Your task to perform on an android device: change notification settings in the gmail app Image 0: 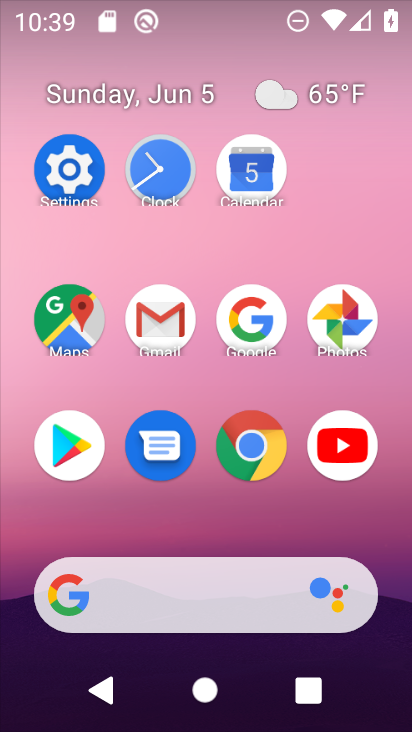
Step 0: click (156, 320)
Your task to perform on an android device: change notification settings in the gmail app Image 1: 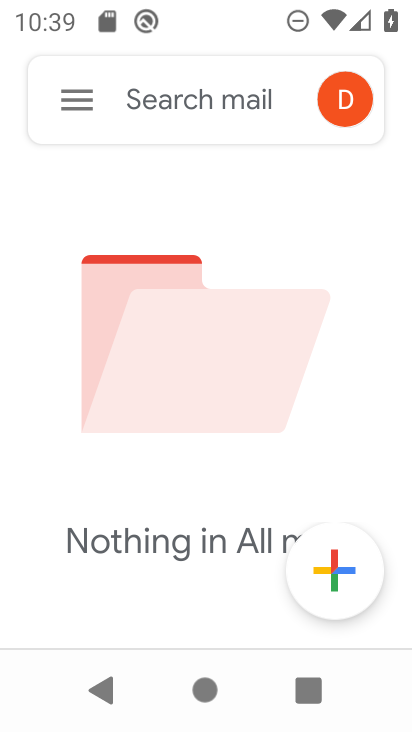
Step 1: click (100, 106)
Your task to perform on an android device: change notification settings in the gmail app Image 2: 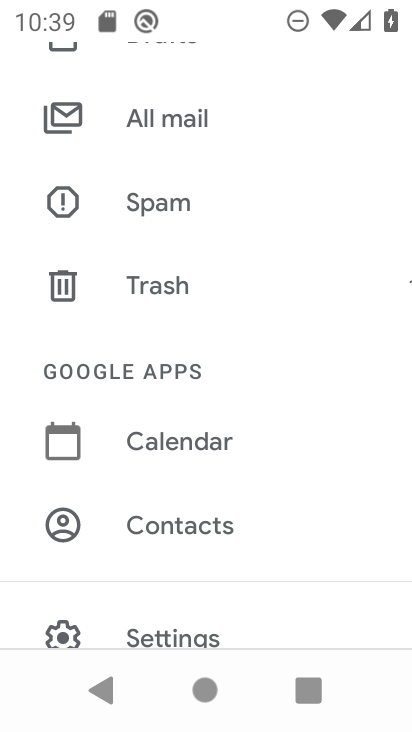
Step 2: click (164, 628)
Your task to perform on an android device: change notification settings in the gmail app Image 3: 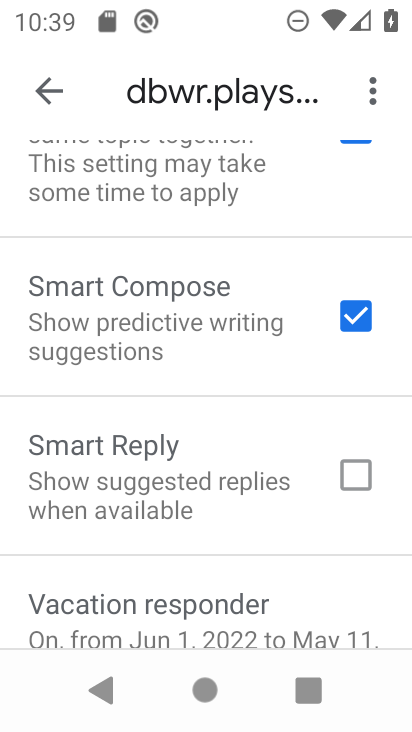
Step 3: drag from (238, 161) to (251, 567)
Your task to perform on an android device: change notification settings in the gmail app Image 4: 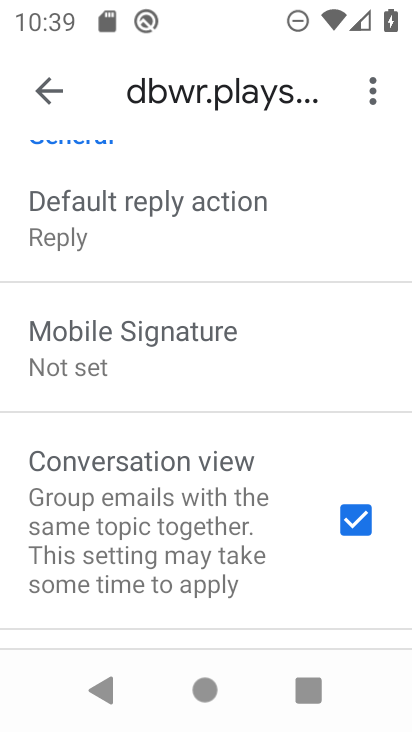
Step 4: drag from (308, 203) to (295, 553)
Your task to perform on an android device: change notification settings in the gmail app Image 5: 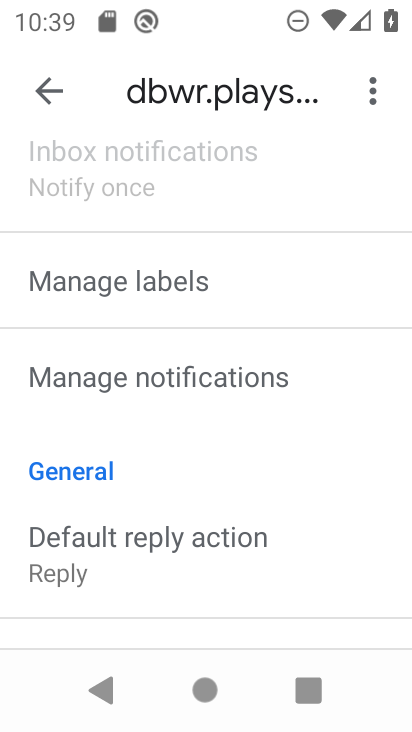
Step 5: drag from (328, 264) to (306, 660)
Your task to perform on an android device: change notification settings in the gmail app Image 6: 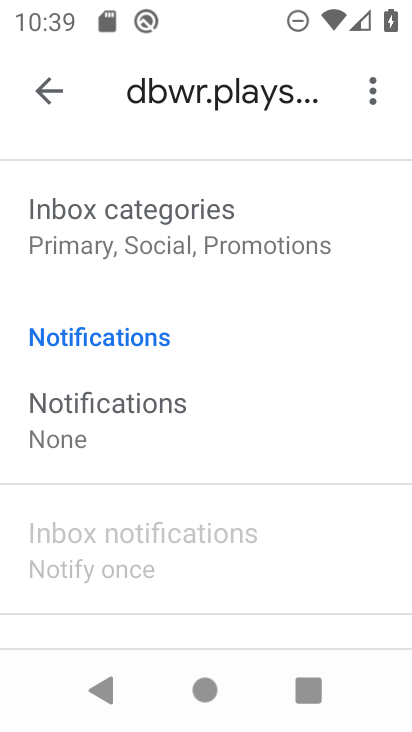
Step 6: click (220, 393)
Your task to perform on an android device: change notification settings in the gmail app Image 7: 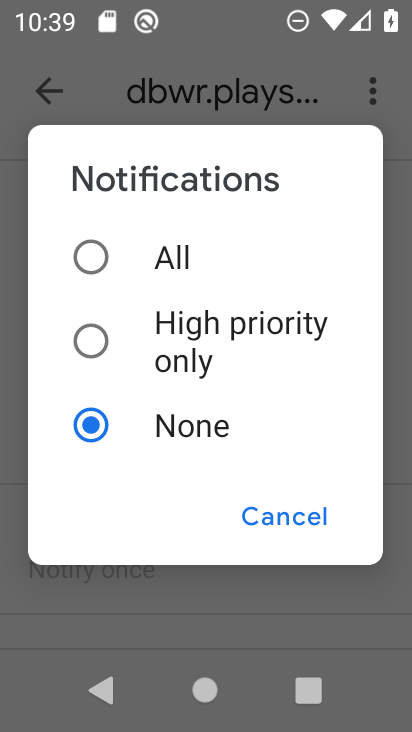
Step 7: click (189, 330)
Your task to perform on an android device: change notification settings in the gmail app Image 8: 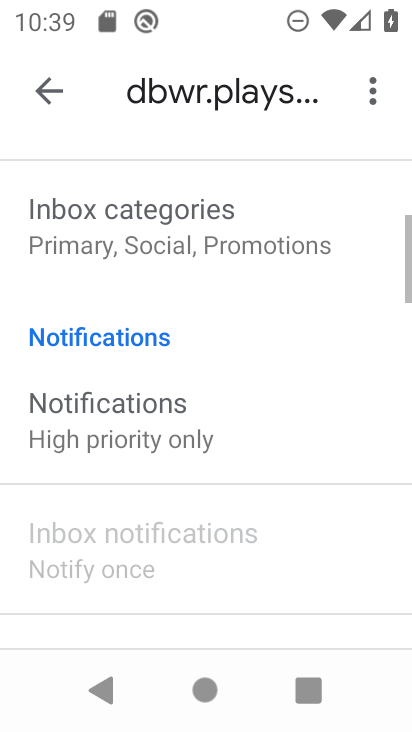
Step 8: task complete